Your task to perform on an android device: uninstall "Pluto TV - Live TV and Movies" Image 0: 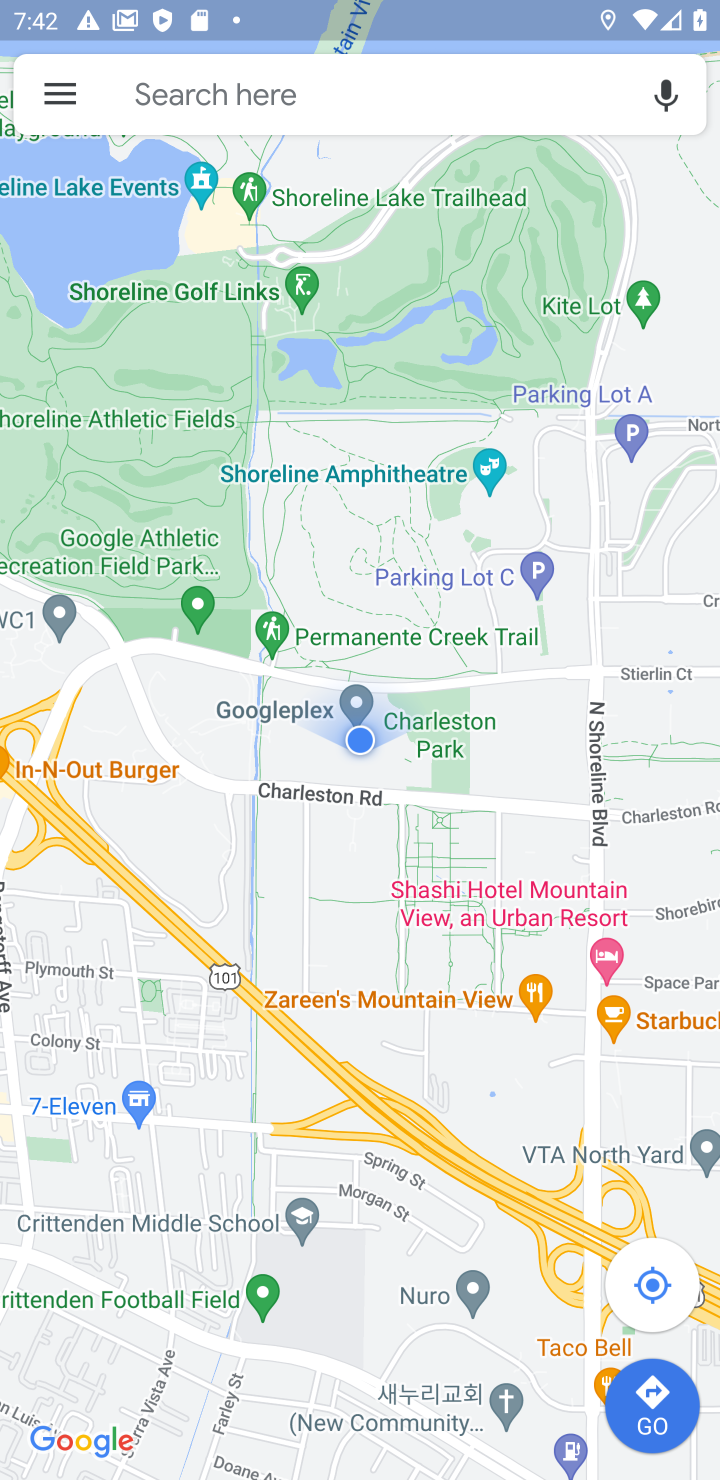
Step 0: press home button
Your task to perform on an android device: uninstall "Pluto TV - Live TV and Movies" Image 1: 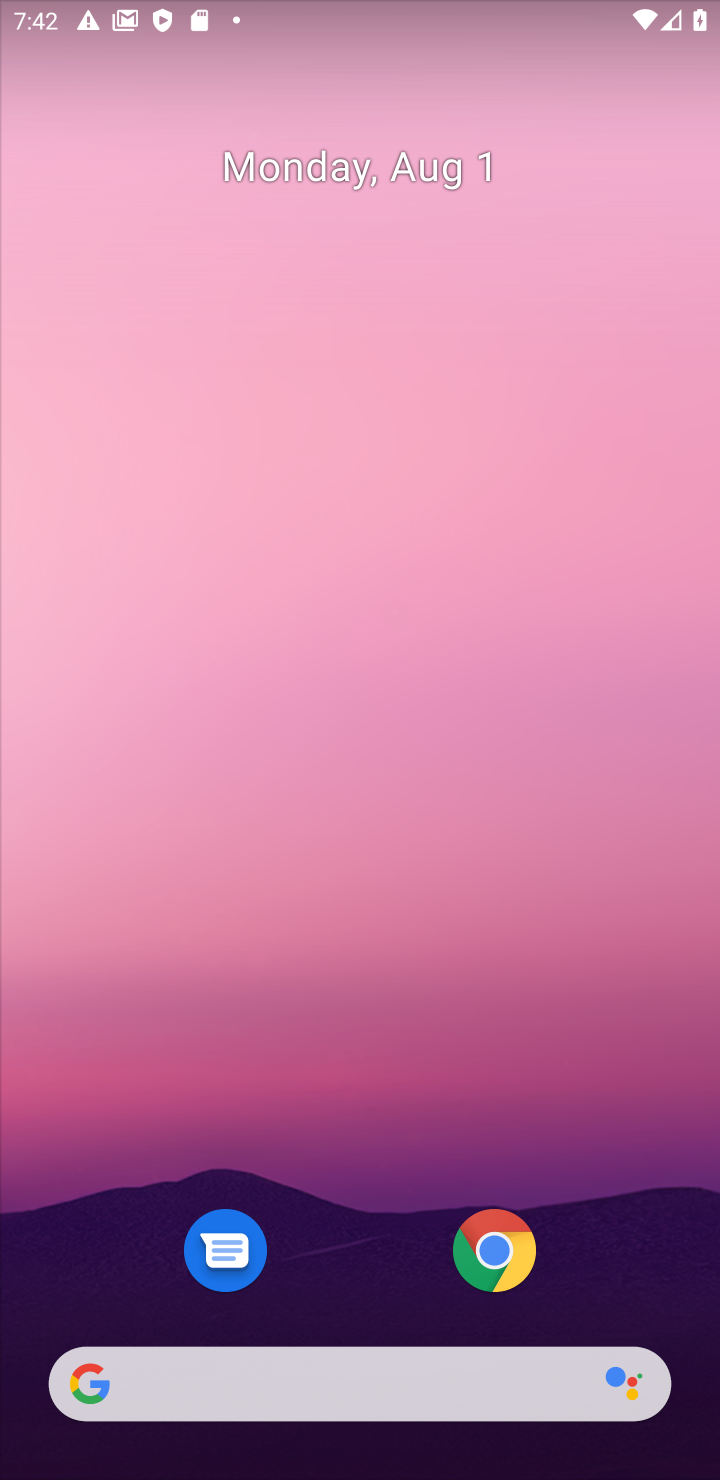
Step 1: drag from (566, 1153) to (418, 318)
Your task to perform on an android device: uninstall "Pluto TV - Live TV and Movies" Image 2: 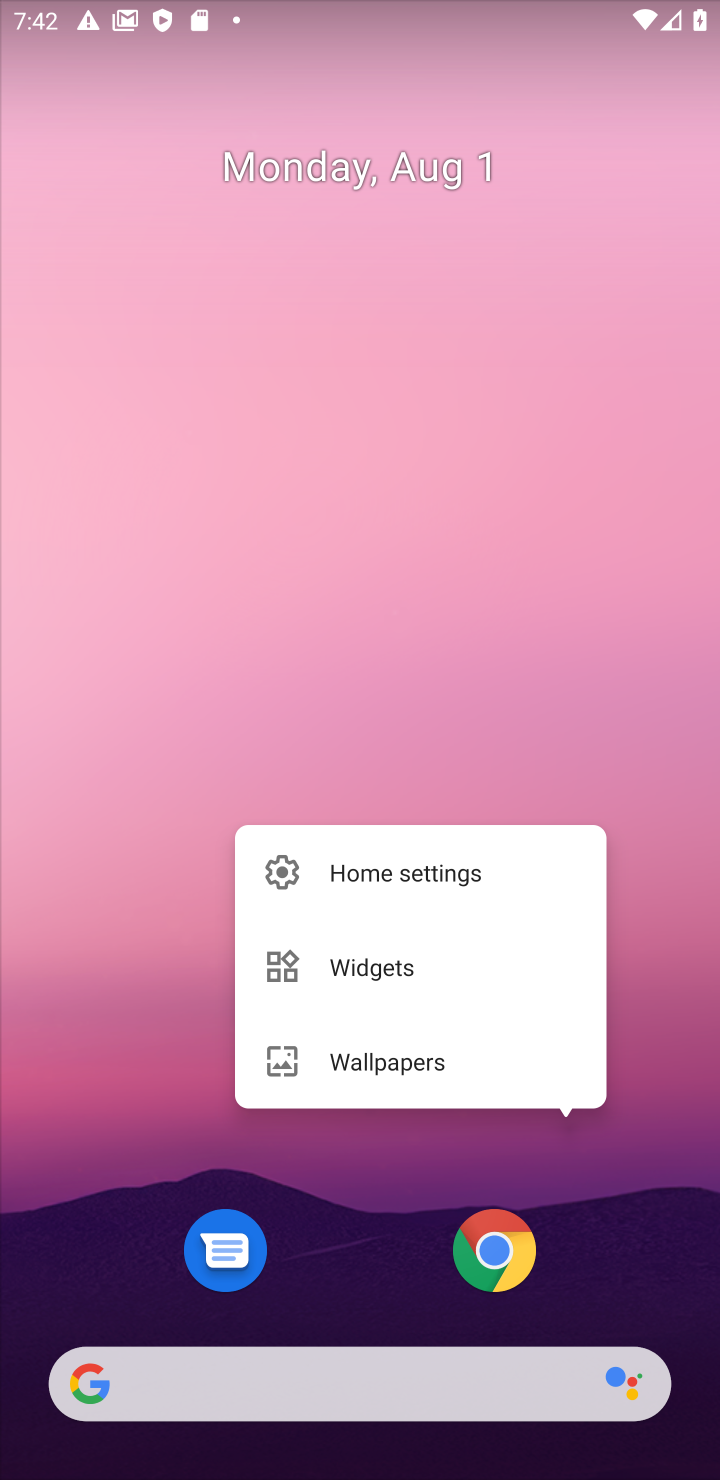
Step 2: click (531, 698)
Your task to perform on an android device: uninstall "Pluto TV - Live TV and Movies" Image 3: 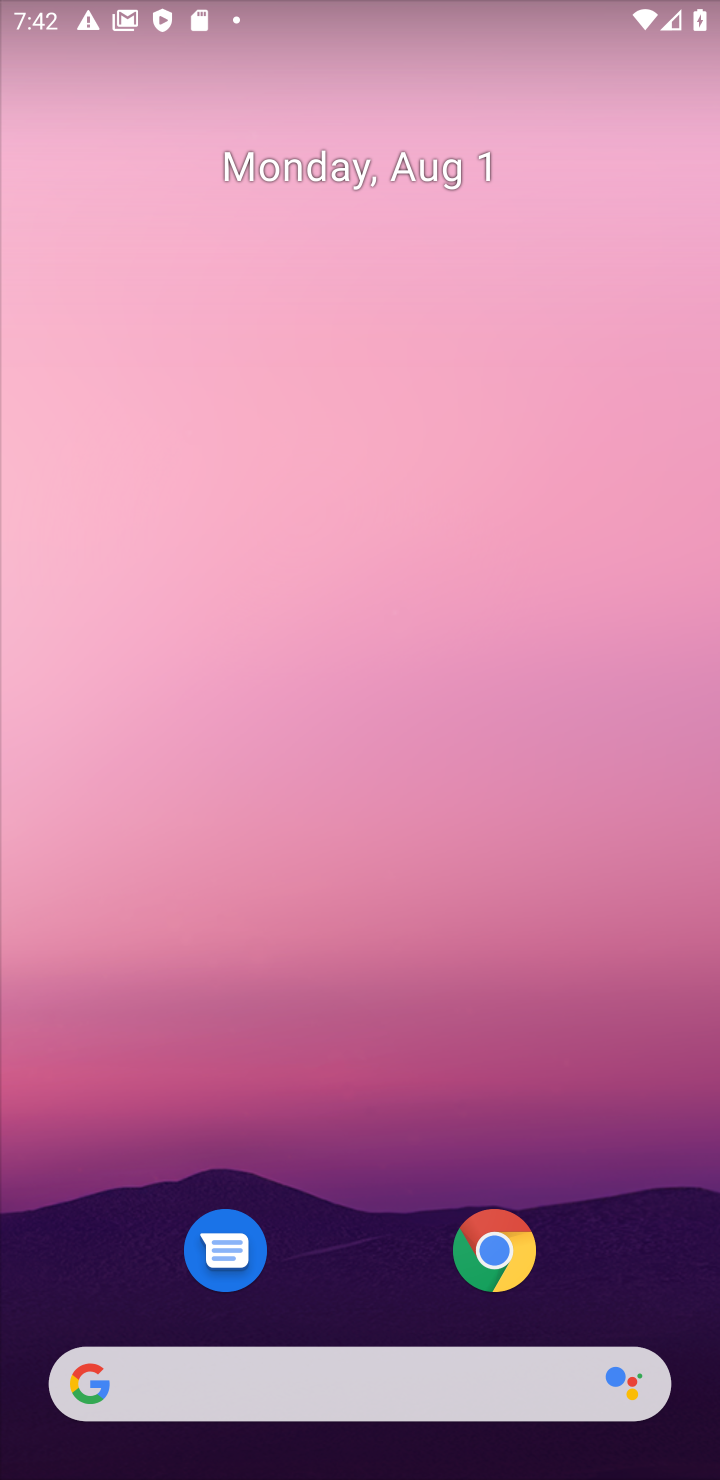
Step 3: drag from (422, 1152) to (195, 29)
Your task to perform on an android device: uninstall "Pluto TV - Live TV and Movies" Image 4: 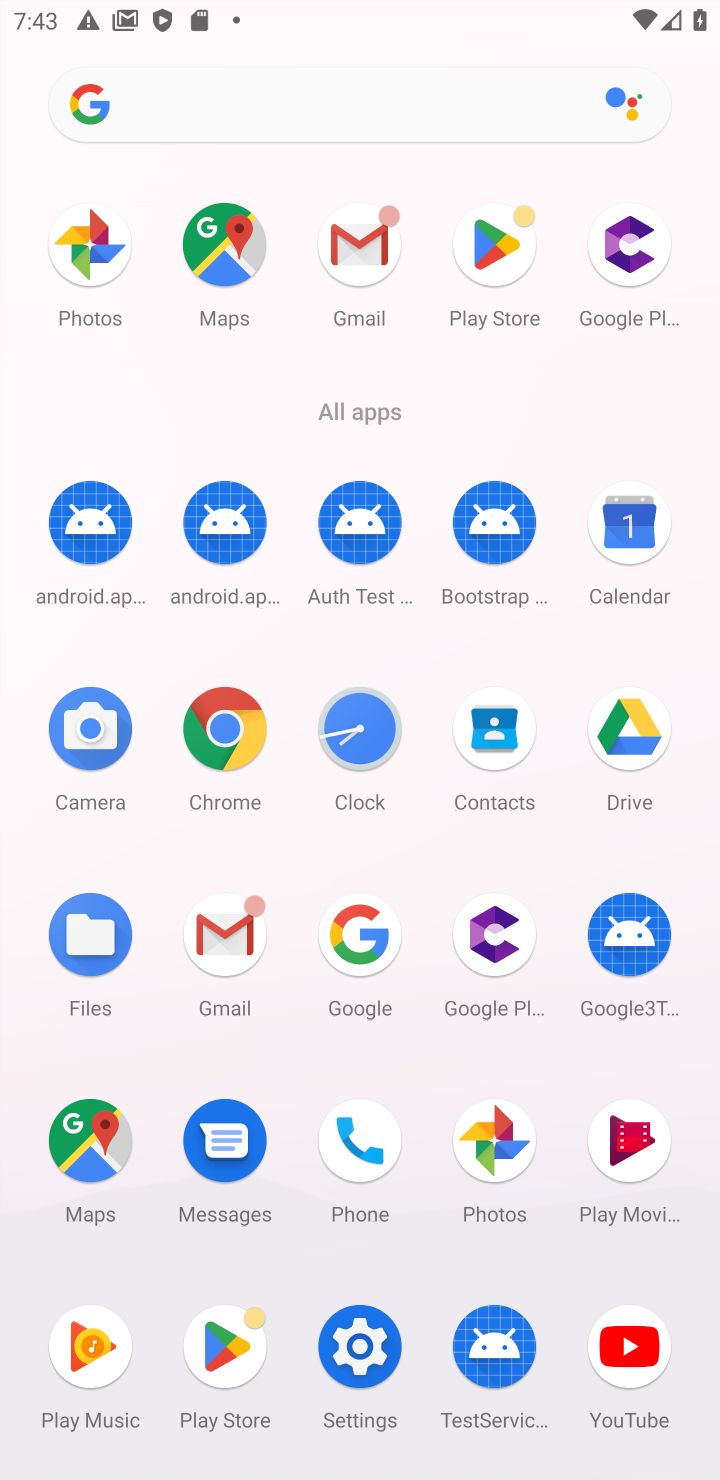
Step 4: click (500, 277)
Your task to perform on an android device: uninstall "Pluto TV - Live TV and Movies" Image 5: 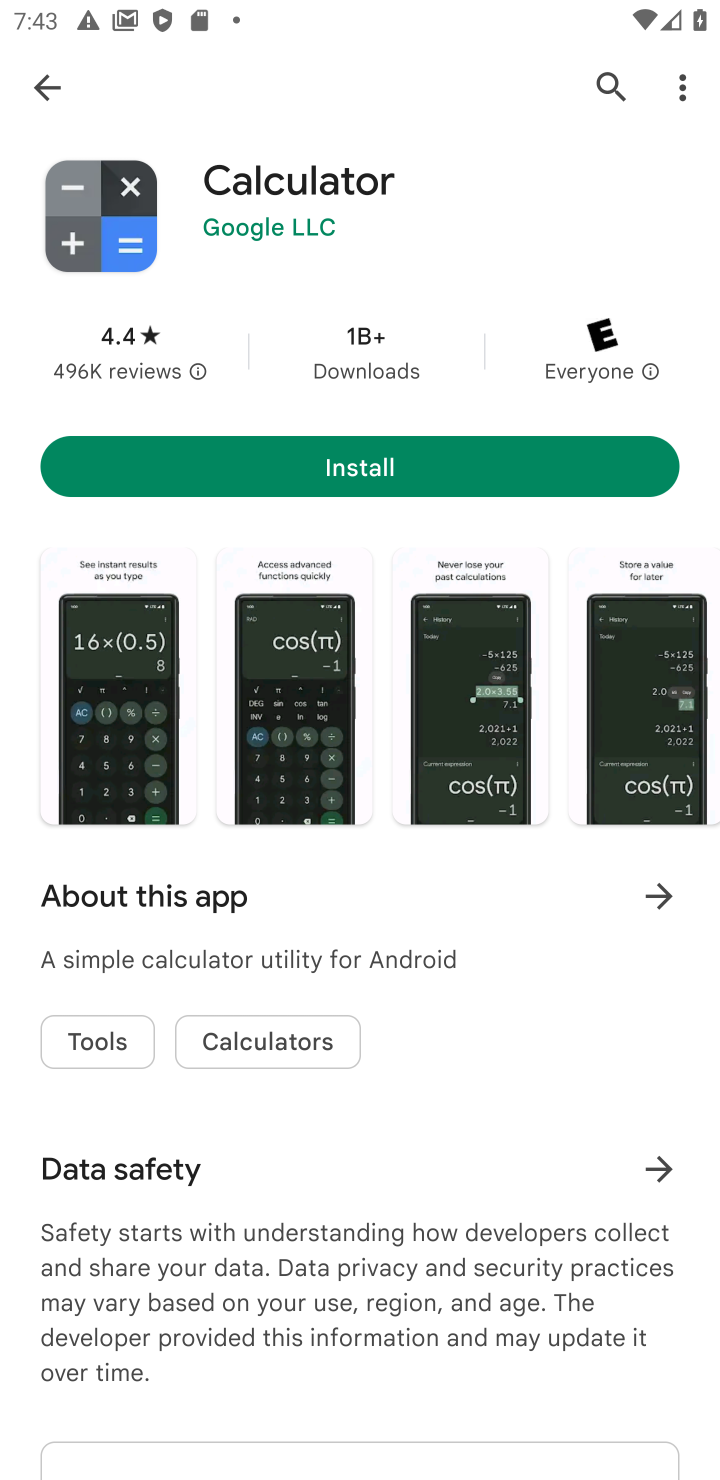
Step 5: click (613, 79)
Your task to perform on an android device: uninstall "Pluto TV - Live TV and Movies" Image 6: 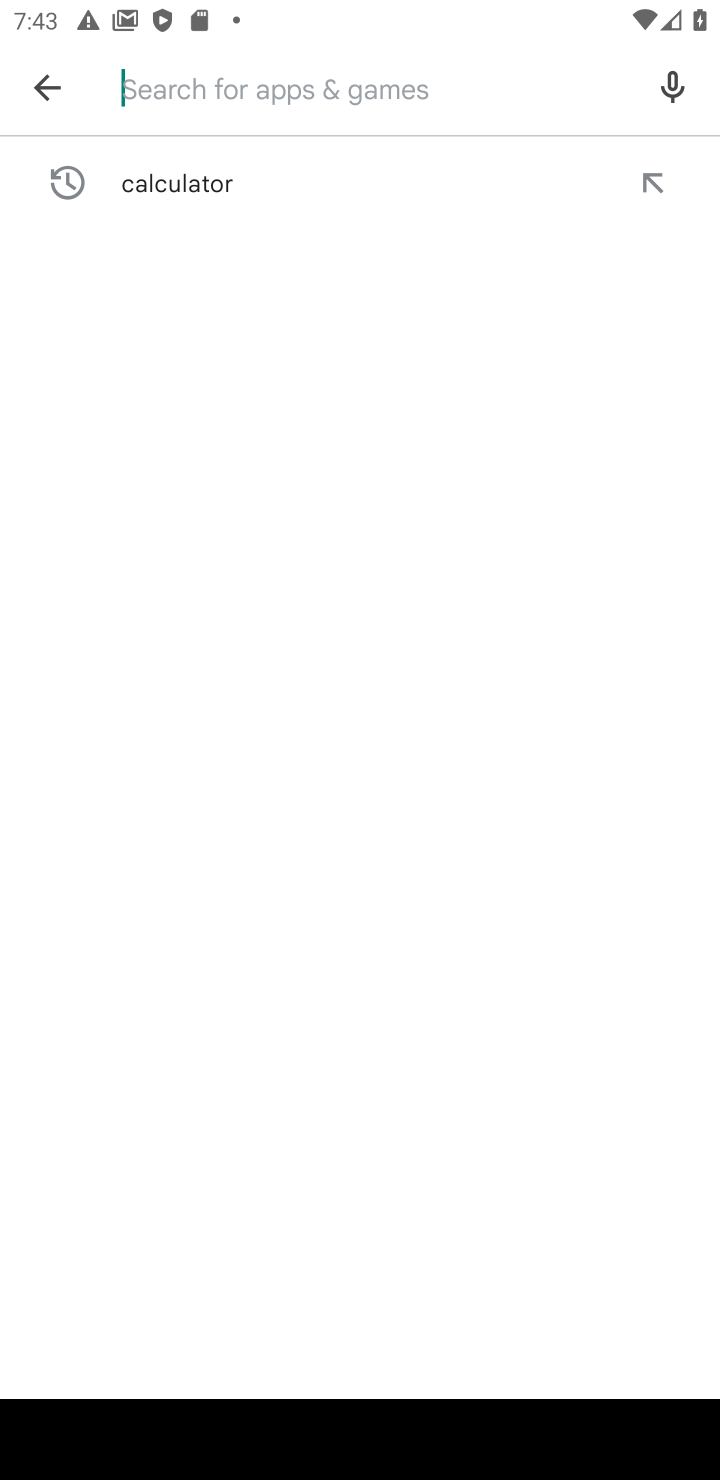
Step 6: type "pluto tv"
Your task to perform on an android device: uninstall "Pluto TV - Live TV and Movies" Image 7: 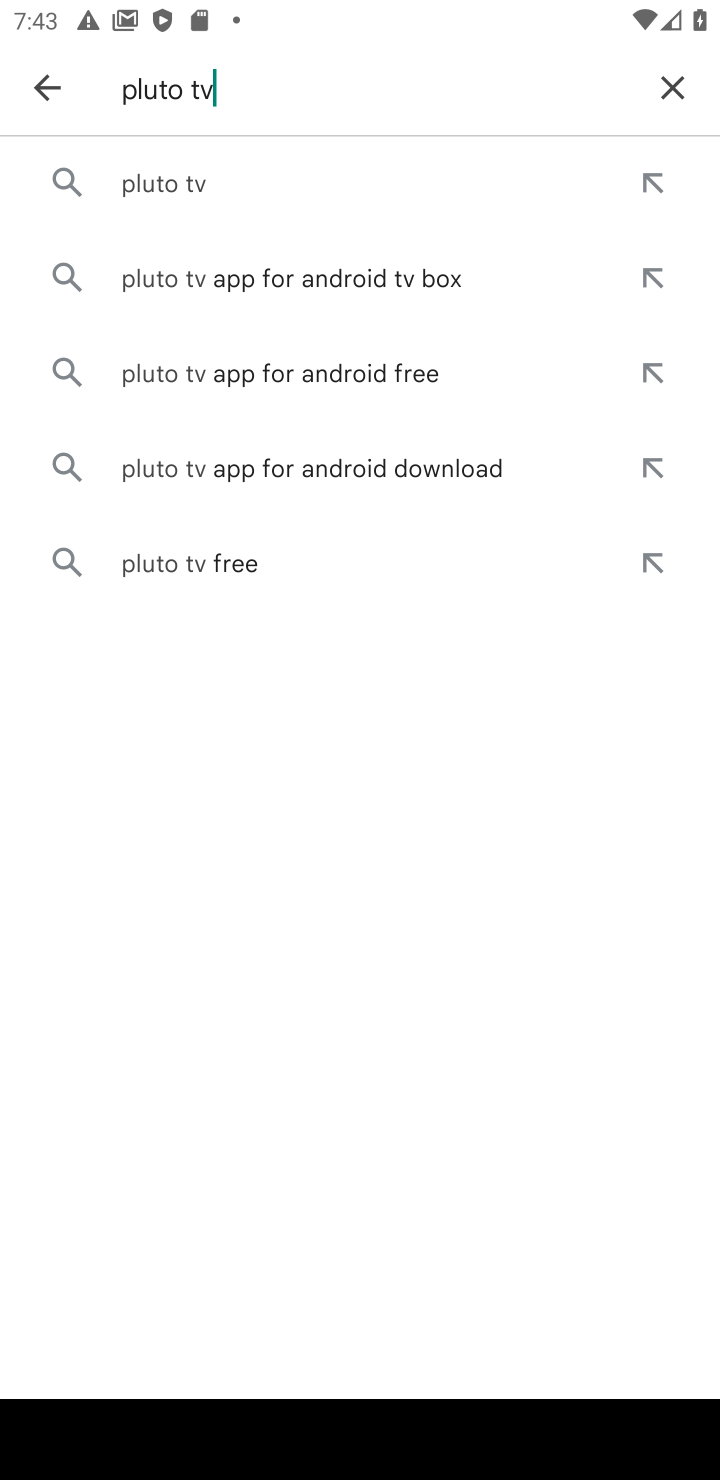
Step 7: click (291, 174)
Your task to perform on an android device: uninstall "Pluto TV - Live TV and Movies" Image 8: 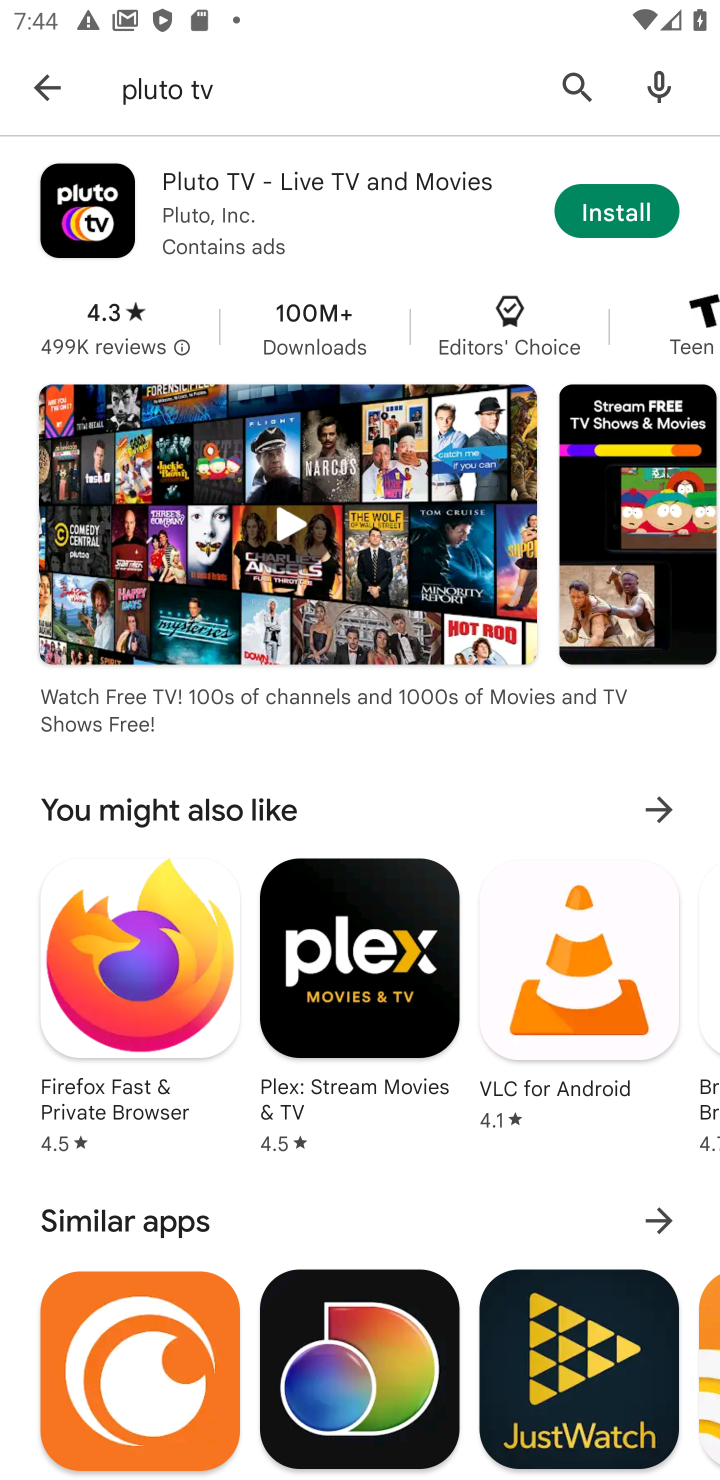
Step 8: click (328, 183)
Your task to perform on an android device: uninstall "Pluto TV - Live TV and Movies" Image 9: 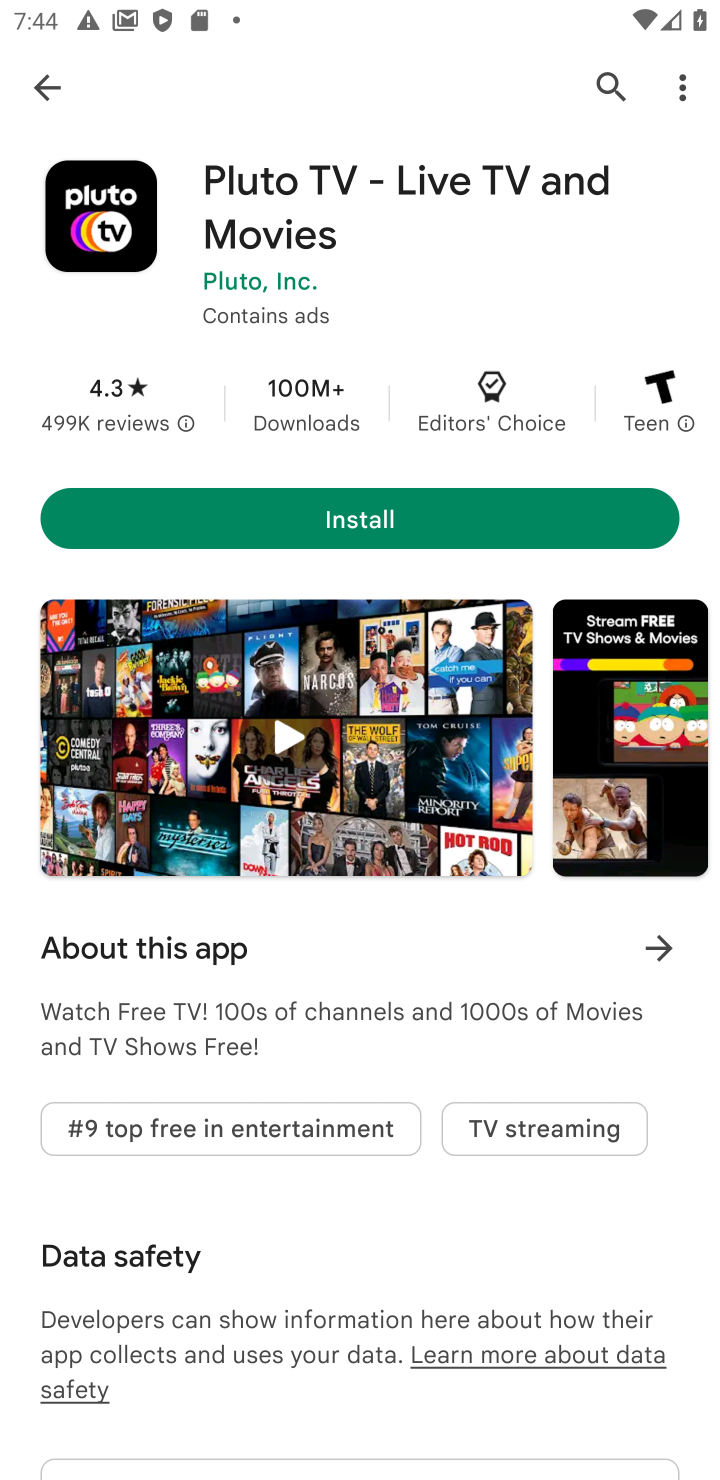
Step 9: task complete